Your task to perform on an android device: Open calendar and show me the first week of next month Image 0: 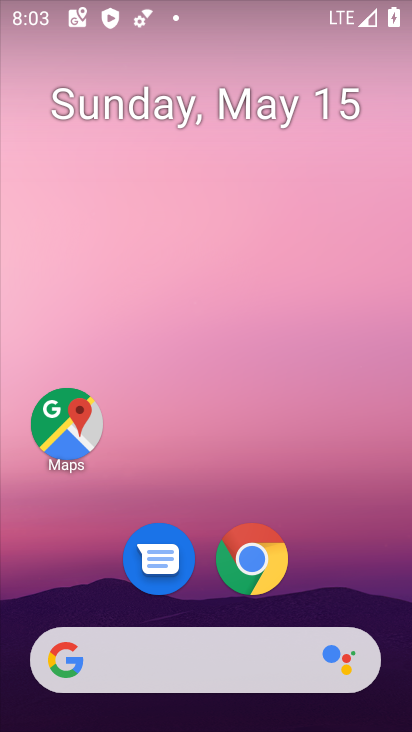
Step 0: drag from (347, 583) to (349, 8)
Your task to perform on an android device: Open calendar and show me the first week of next month Image 1: 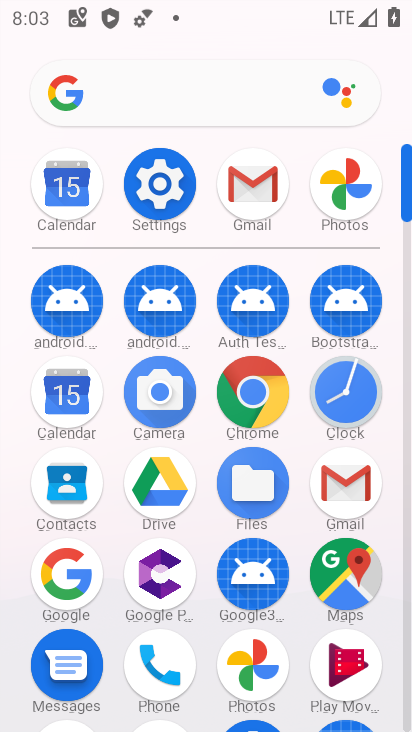
Step 1: click (156, 182)
Your task to perform on an android device: Open calendar and show me the first week of next month Image 2: 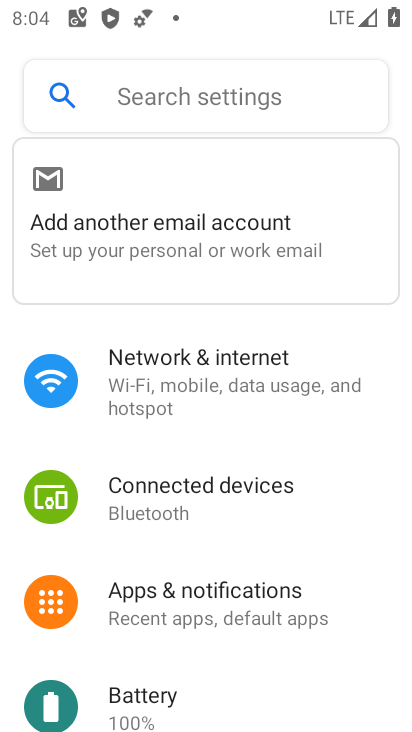
Step 2: press back button
Your task to perform on an android device: Open calendar and show me the first week of next month Image 3: 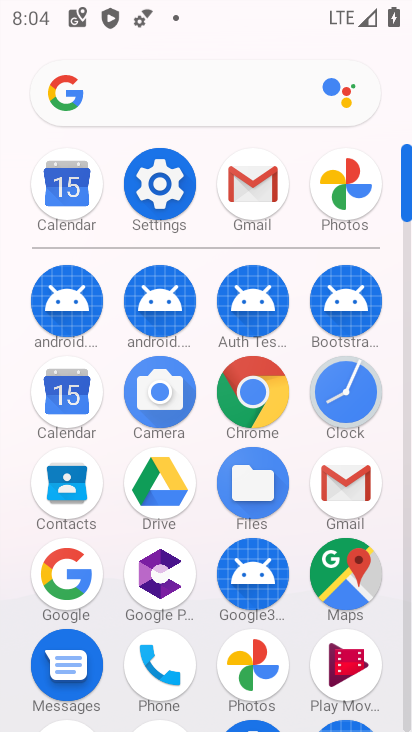
Step 3: click (85, 428)
Your task to perform on an android device: Open calendar and show me the first week of next month Image 4: 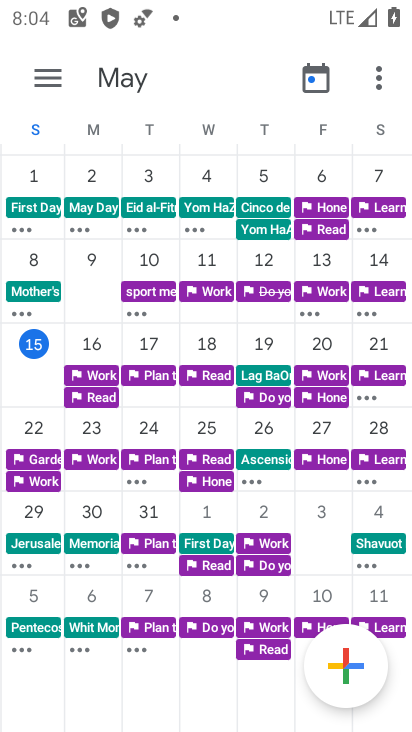
Step 4: click (132, 64)
Your task to perform on an android device: Open calendar and show me the first week of next month Image 5: 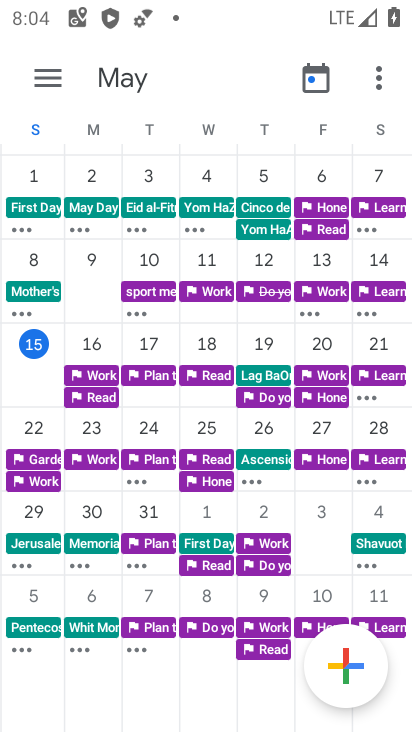
Step 5: click (132, 68)
Your task to perform on an android device: Open calendar and show me the first week of next month Image 6: 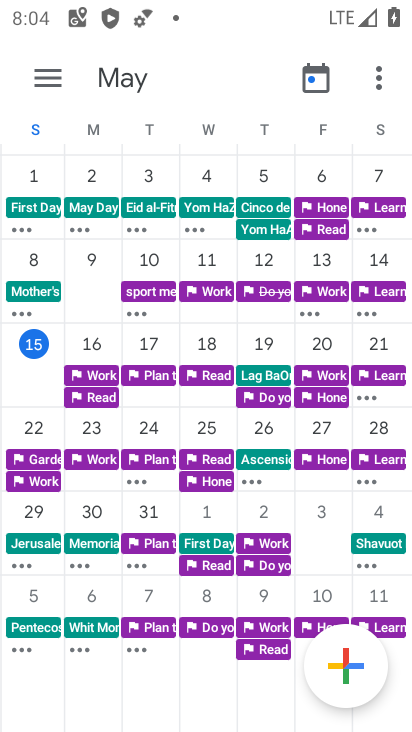
Step 6: click (314, 90)
Your task to perform on an android device: Open calendar and show me the first week of next month Image 7: 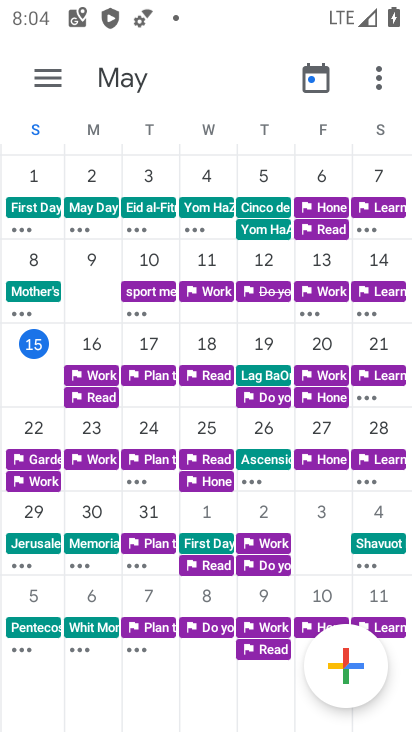
Step 7: click (314, 90)
Your task to perform on an android device: Open calendar and show me the first week of next month Image 8: 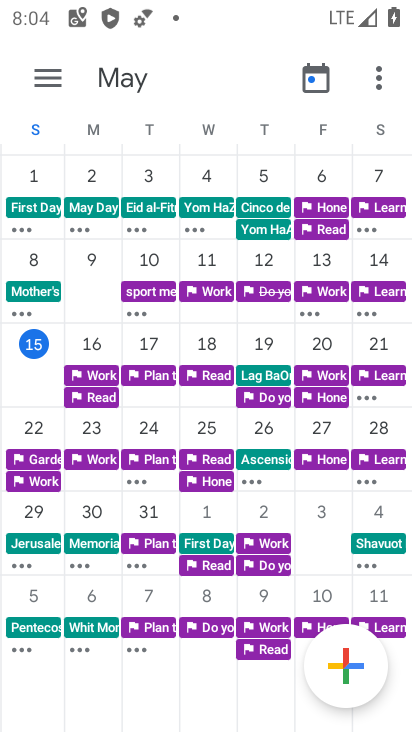
Step 8: click (314, 90)
Your task to perform on an android device: Open calendar and show me the first week of next month Image 9: 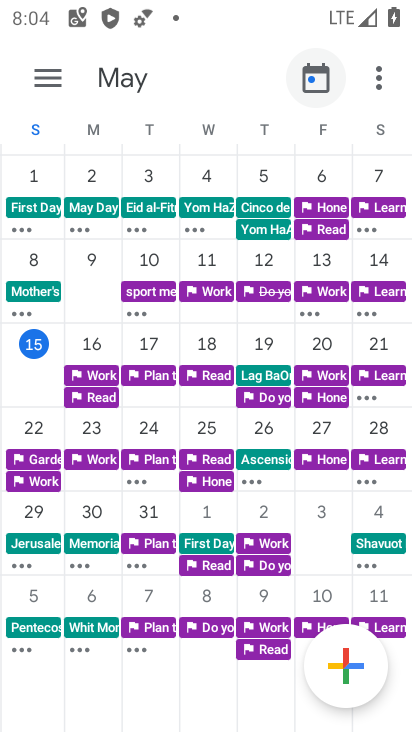
Step 9: click (314, 90)
Your task to perform on an android device: Open calendar and show me the first week of next month Image 10: 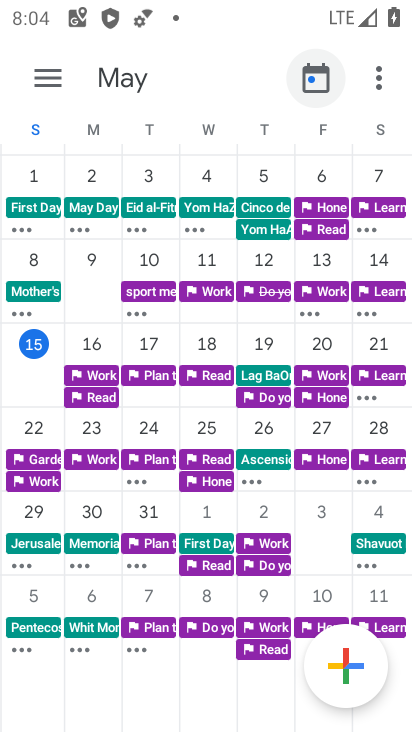
Step 10: click (314, 90)
Your task to perform on an android device: Open calendar and show me the first week of next month Image 11: 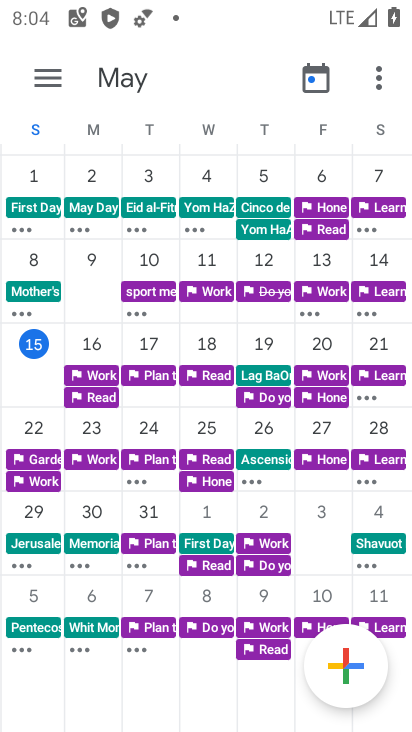
Step 11: click (114, 82)
Your task to perform on an android device: Open calendar and show me the first week of next month Image 12: 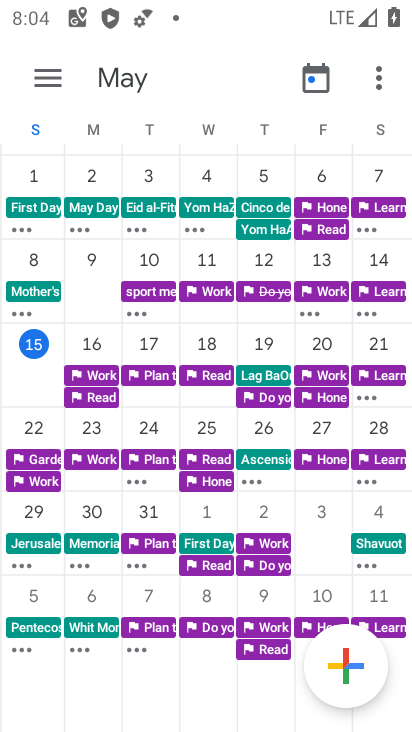
Step 12: click (114, 82)
Your task to perform on an android device: Open calendar and show me the first week of next month Image 13: 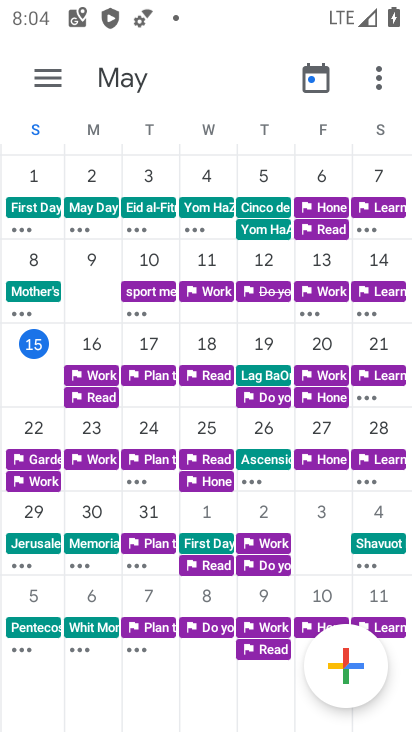
Step 13: click (53, 82)
Your task to perform on an android device: Open calendar and show me the first week of next month Image 14: 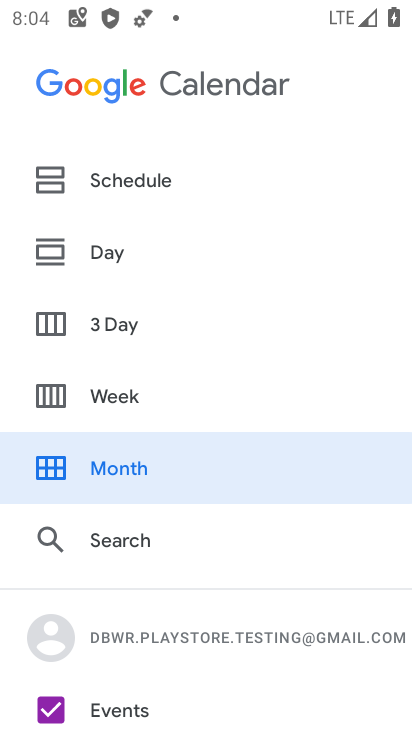
Step 14: click (148, 199)
Your task to perform on an android device: Open calendar and show me the first week of next month Image 15: 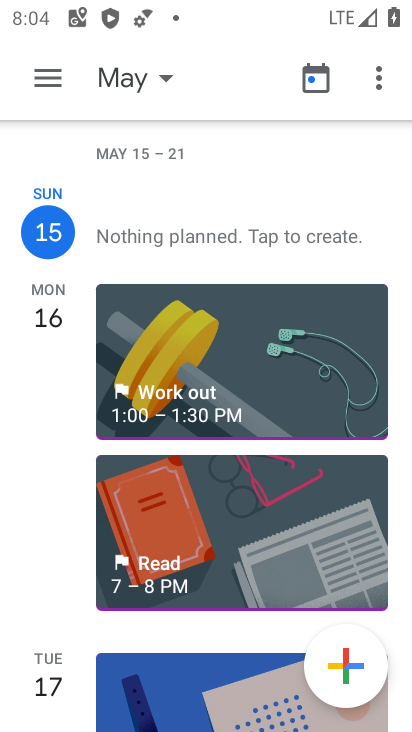
Step 15: click (157, 80)
Your task to perform on an android device: Open calendar and show me the first week of next month Image 16: 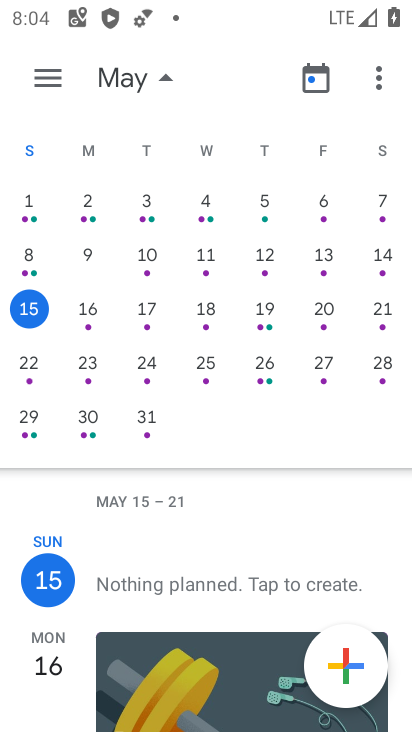
Step 16: drag from (391, 385) to (32, 307)
Your task to perform on an android device: Open calendar and show me the first week of next month Image 17: 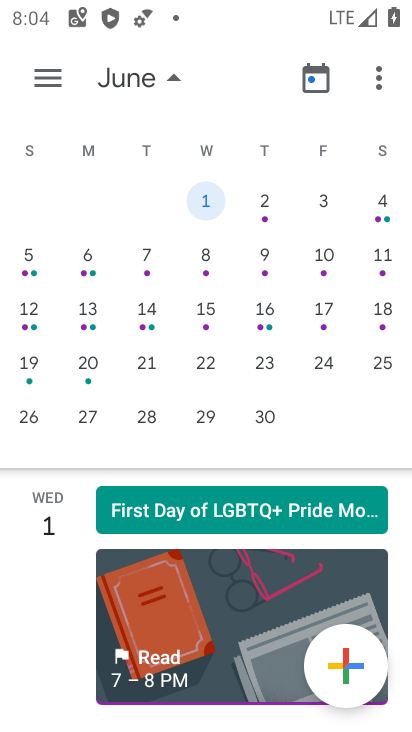
Step 17: click (209, 251)
Your task to perform on an android device: Open calendar and show me the first week of next month Image 18: 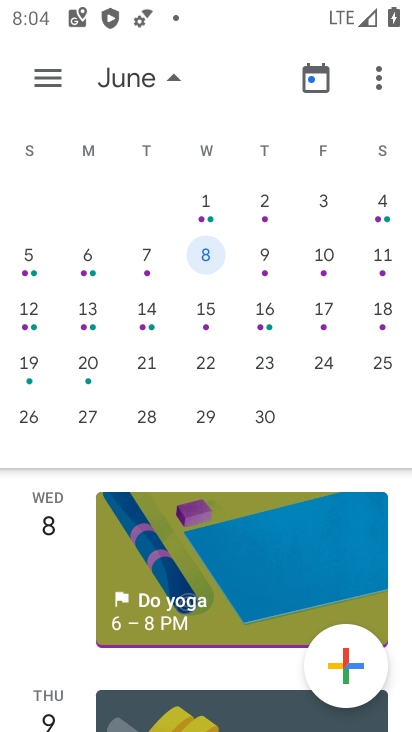
Step 18: task complete